Your task to perform on an android device: Go to CNN.com Image 0: 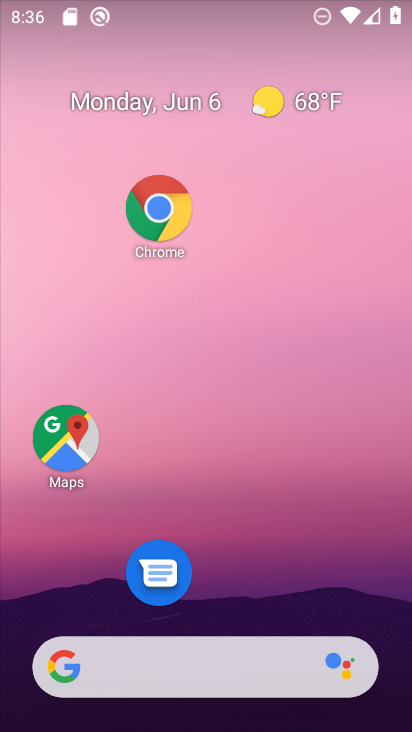
Step 0: click (239, 123)
Your task to perform on an android device: Go to CNN.com Image 1: 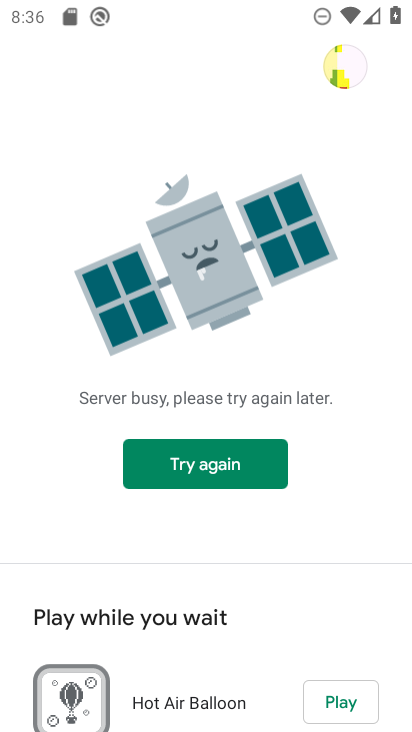
Step 1: press back button
Your task to perform on an android device: Go to CNN.com Image 2: 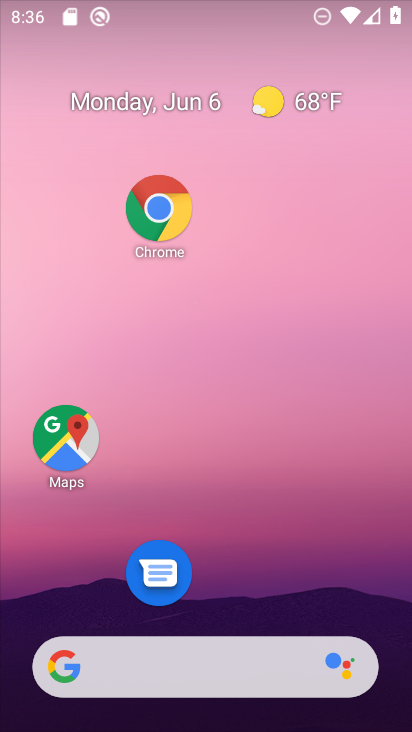
Step 2: drag from (238, 707) to (183, 11)
Your task to perform on an android device: Go to CNN.com Image 3: 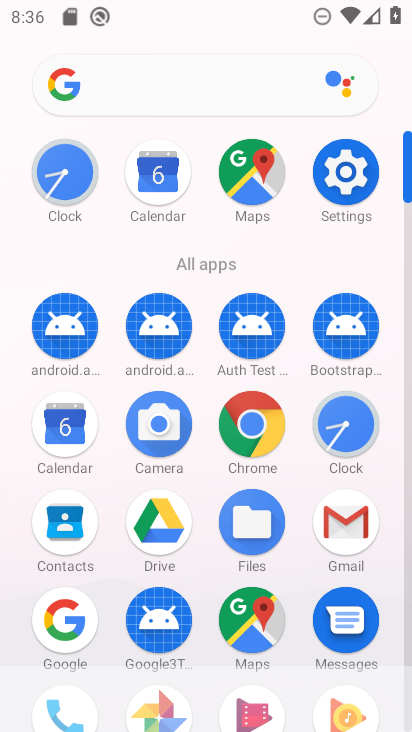
Step 3: click (257, 417)
Your task to perform on an android device: Go to CNN.com Image 4: 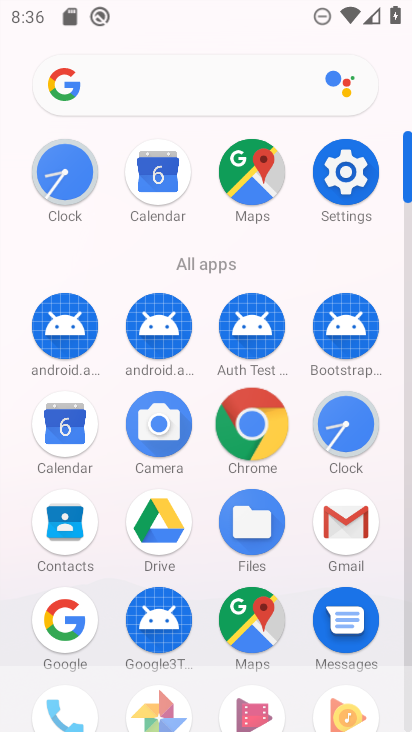
Step 4: click (257, 417)
Your task to perform on an android device: Go to CNN.com Image 5: 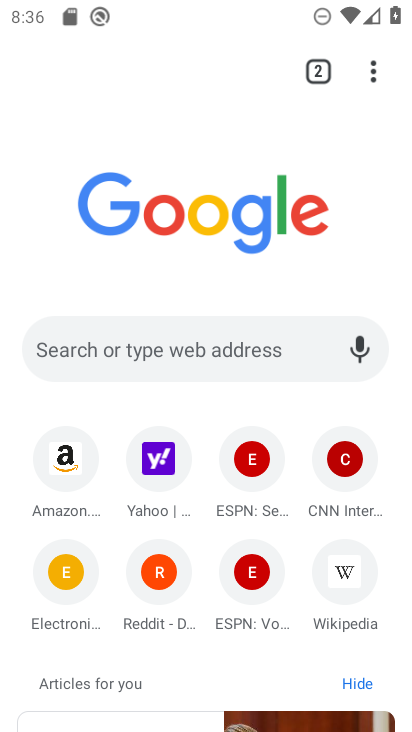
Step 5: click (355, 465)
Your task to perform on an android device: Go to CNN.com Image 6: 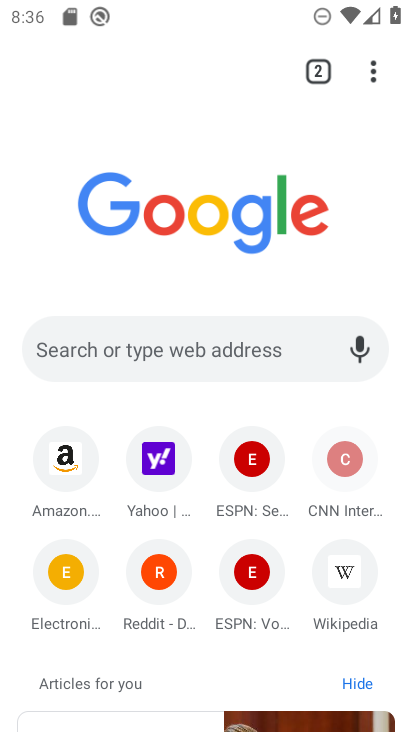
Step 6: click (353, 464)
Your task to perform on an android device: Go to CNN.com Image 7: 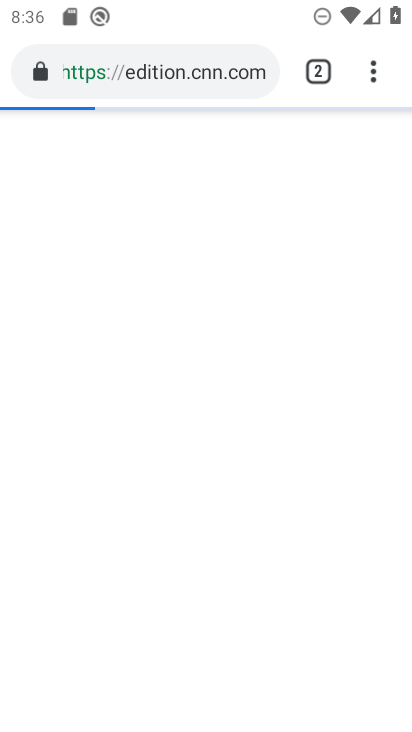
Step 7: click (353, 462)
Your task to perform on an android device: Go to CNN.com Image 8: 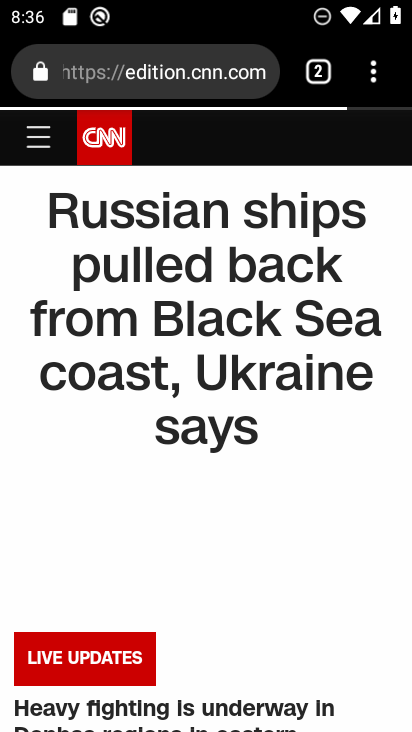
Step 8: task complete